Your task to perform on an android device: turn on data saver in the chrome app Image 0: 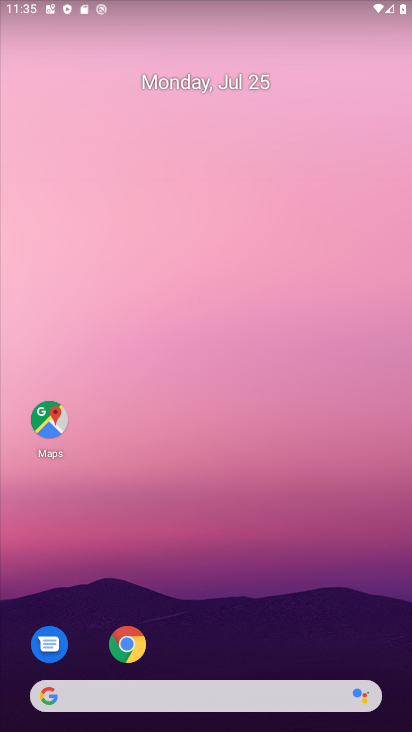
Step 0: drag from (222, 682) to (218, 110)
Your task to perform on an android device: turn on data saver in the chrome app Image 1: 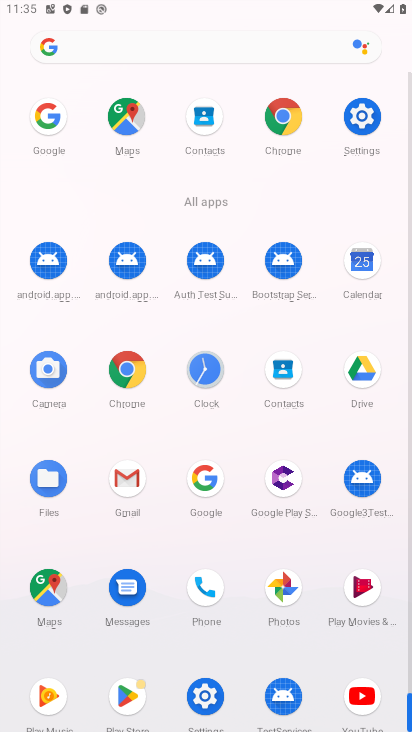
Step 1: click (140, 395)
Your task to perform on an android device: turn on data saver in the chrome app Image 2: 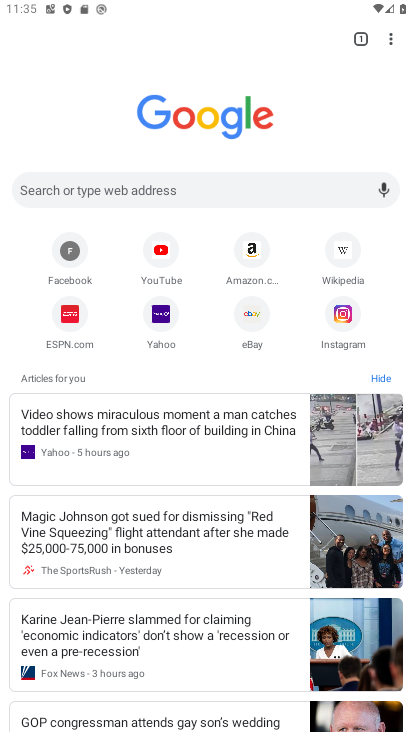
Step 2: click (395, 45)
Your task to perform on an android device: turn on data saver in the chrome app Image 3: 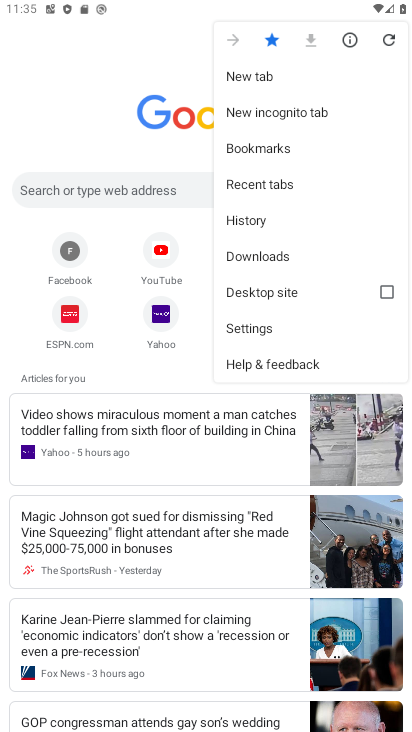
Step 3: click (252, 328)
Your task to perform on an android device: turn on data saver in the chrome app Image 4: 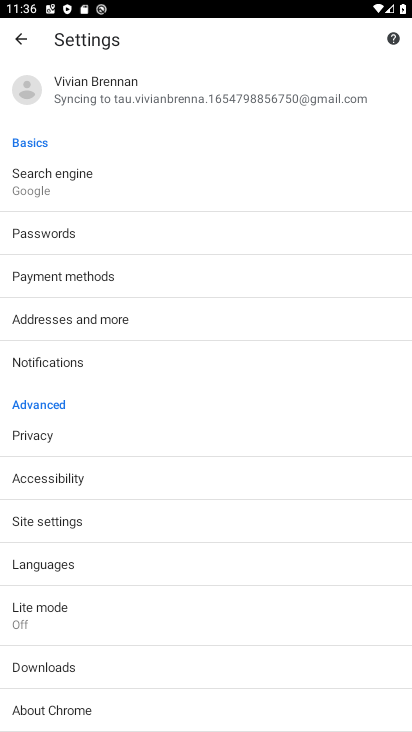
Step 4: click (69, 617)
Your task to perform on an android device: turn on data saver in the chrome app Image 5: 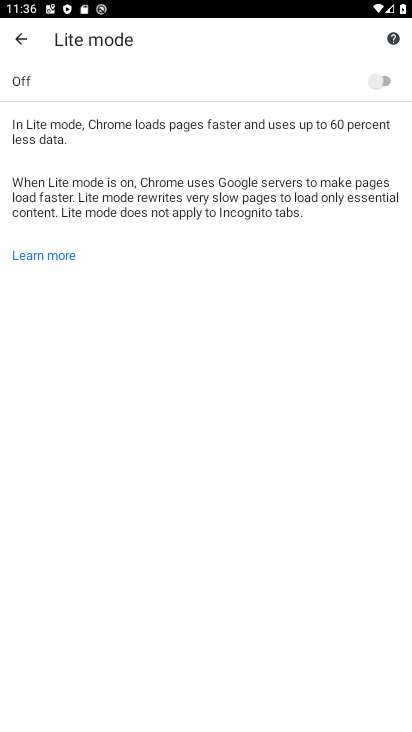
Step 5: click (380, 87)
Your task to perform on an android device: turn on data saver in the chrome app Image 6: 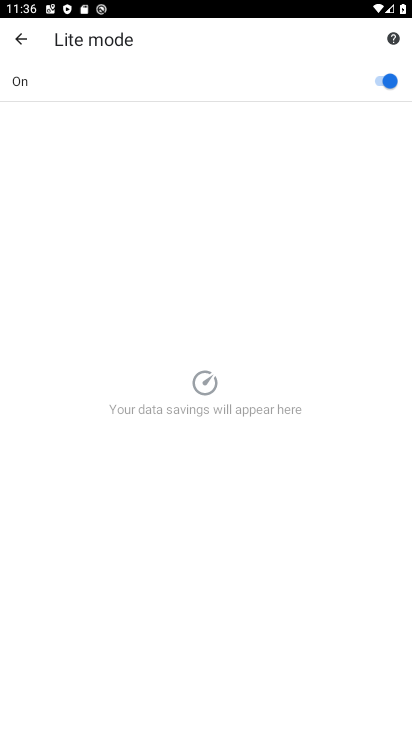
Step 6: task complete